Your task to perform on an android device: delete browsing data in the chrome app Image 0: 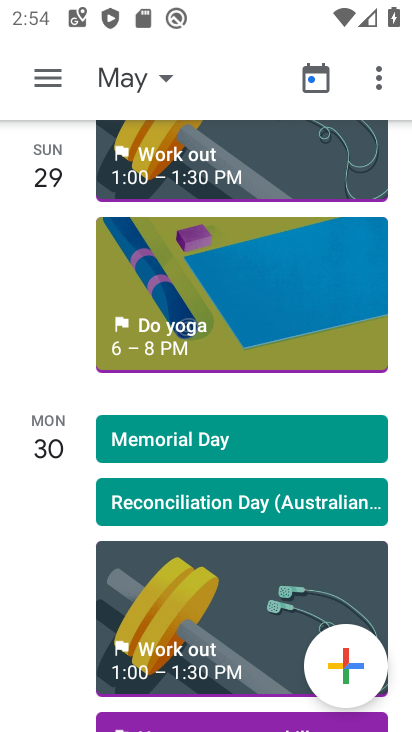
Step 0: press home button
Your task to perform on an android device: delete browsing data in the chrome app Image 1: 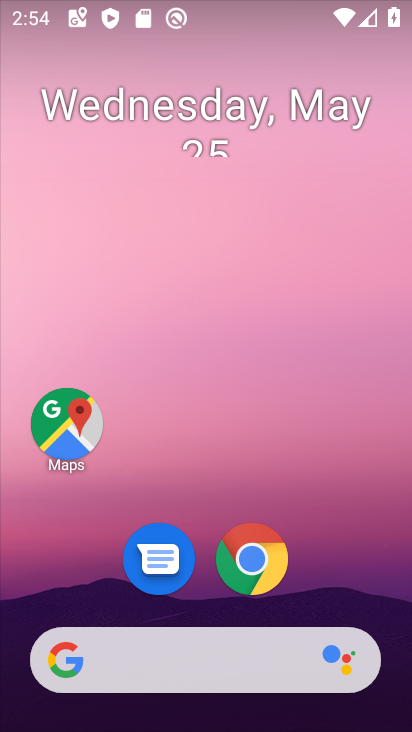
Step 1: click (248, 550)
Your task to perform on an android device: delete browsing data in the chrome app Image 2: 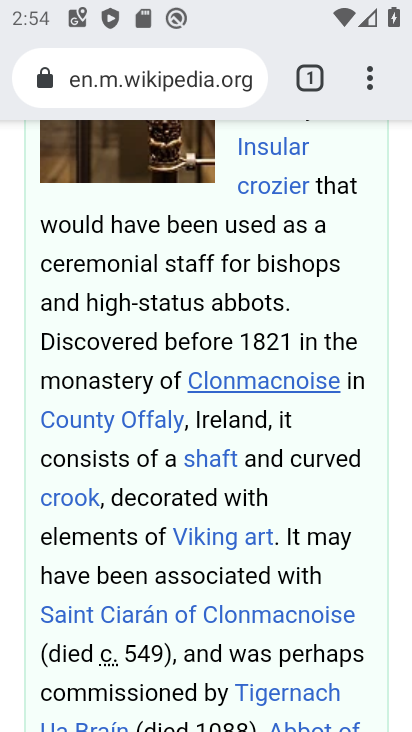
Step 2: click (369, 70)
Your task to perform on an android device: delete browsing data in the chrome app Image 3: 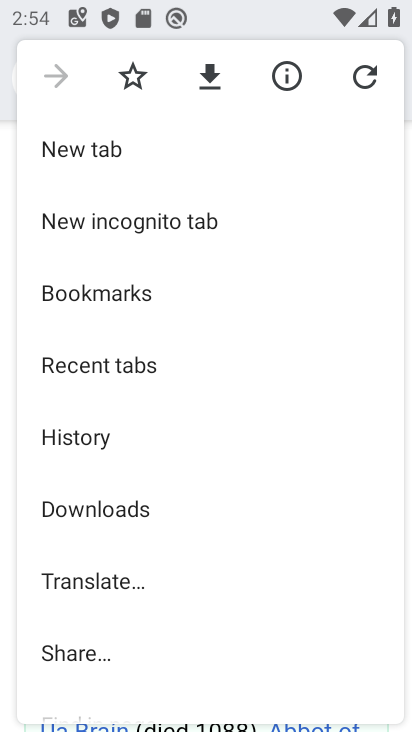
Step 3: click (127, 432)
Your task to perform on an android device: delete browsing data in the chrome app Image 4: 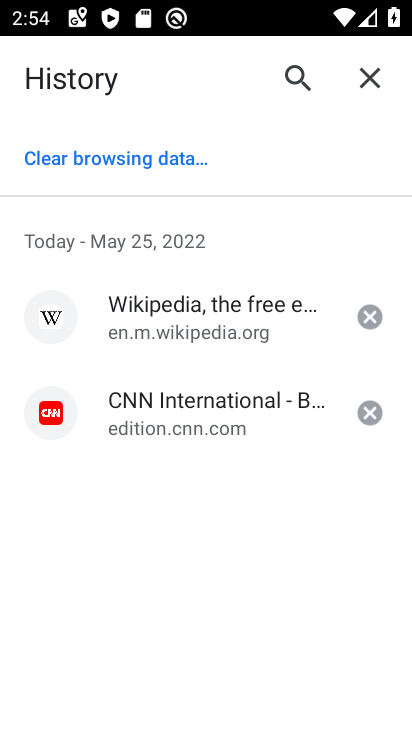
Step 4: click (118, 152)
Your task to perform on an android device: delete browsing data in the chrome app Image 5: 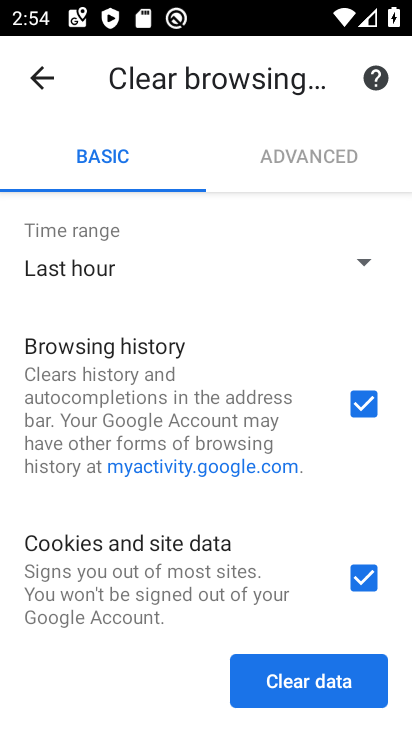
Step 5: click (359, 255)
Your task to perform on an android device: delete browsing data in the chrome app Image 6: 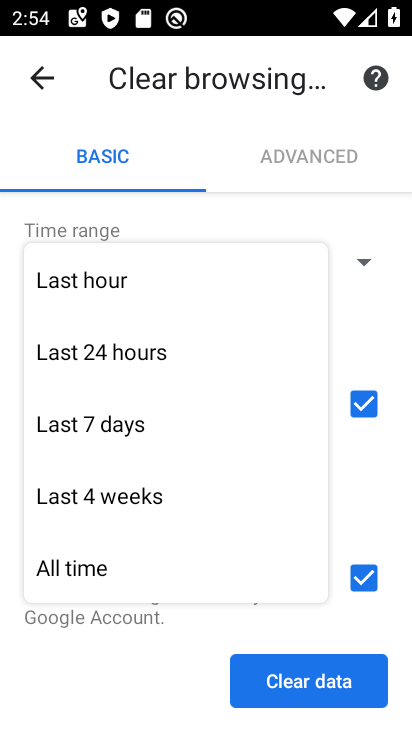
Step 6: click (111, 565)
Your task to perform on an android device: delete browsing data in the chrome app Image 7: 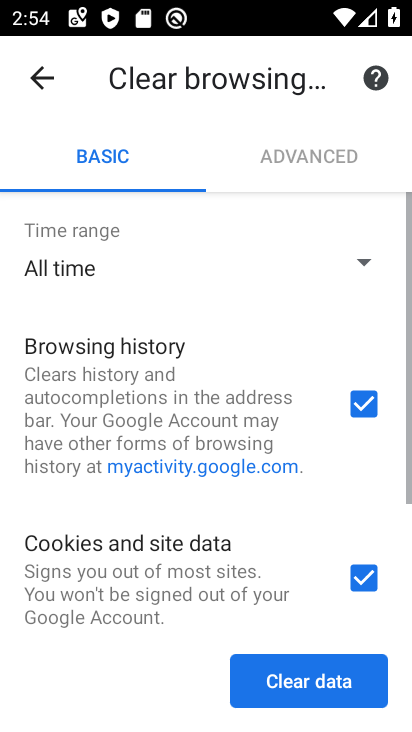
Step 7: drag from (281, 546) to (312, 247)
Your task to perform on an android device: delete browsing data in the chrome app Image 8: 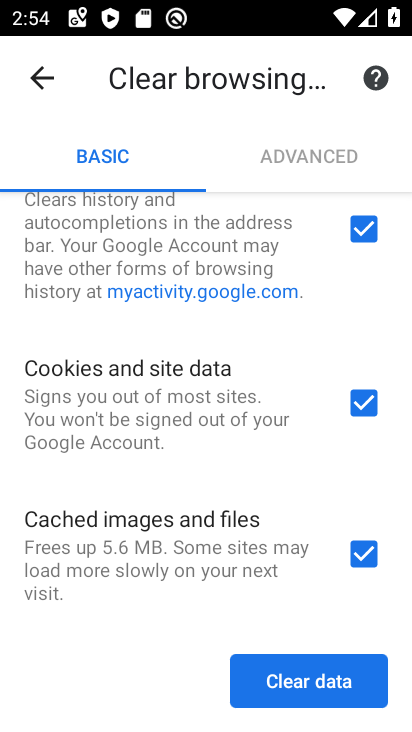
Step 8: click (311, 683)
Your task to perform on an android device: delete browsing data in the chrome app Image 9: 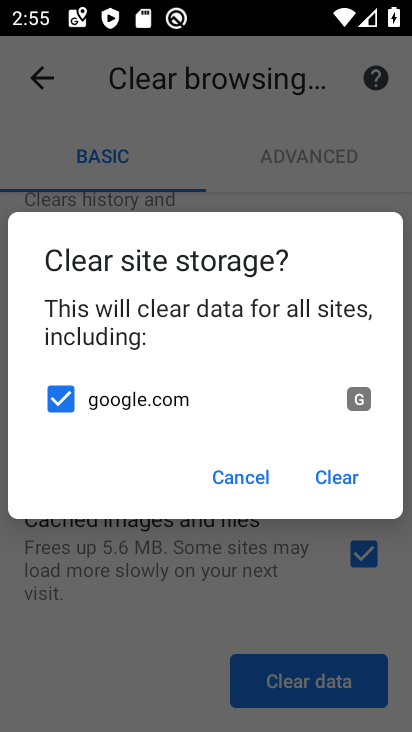
Step 9: click (337, 480)
Your task to perform on an android device: delete browsing data in the chrome app Image 10: 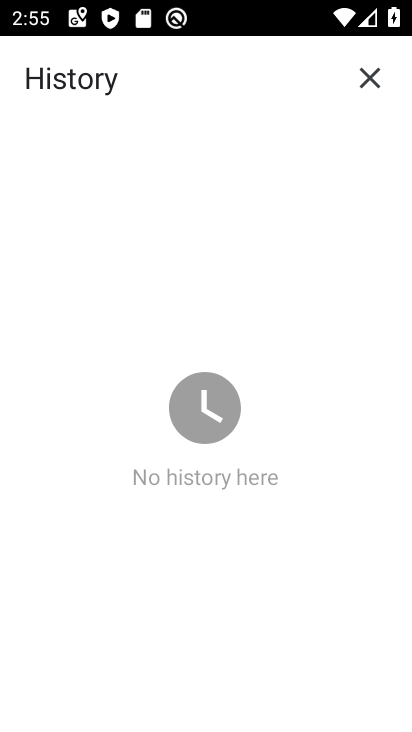
Step 10: task complete